Your task to perform on an android device: Open calendar and show me the second week of next month Image 0: 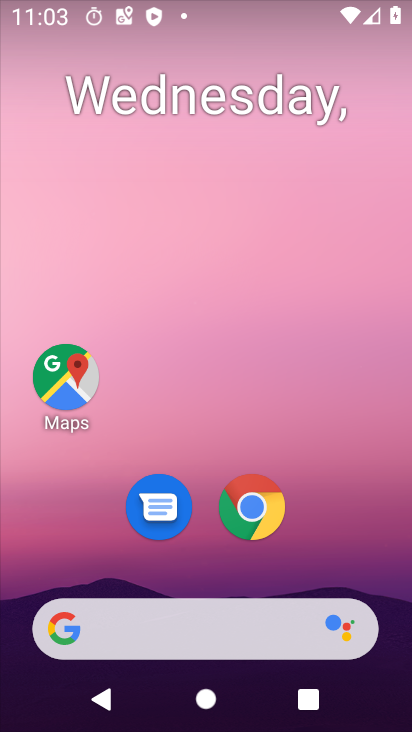
Step 0: drag from (218, 725) to (221, 34)
Your task to perform on an android device: Open calendar and show me the second week of next month Image 1: 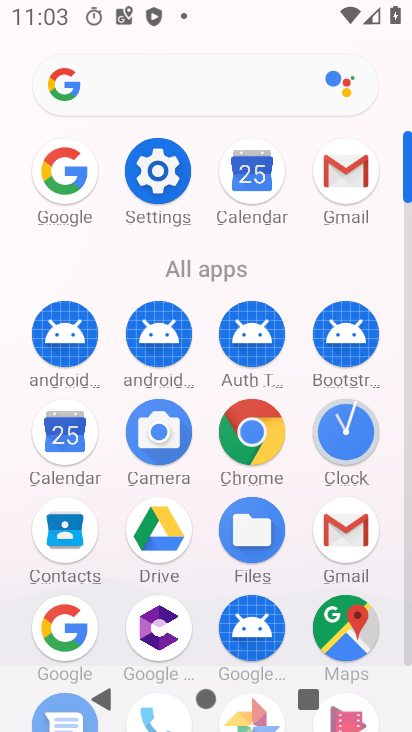
Step 1: click (55, 448)
Your task to perform on an android device: Open calendar and show me the second week of next month Image 2: 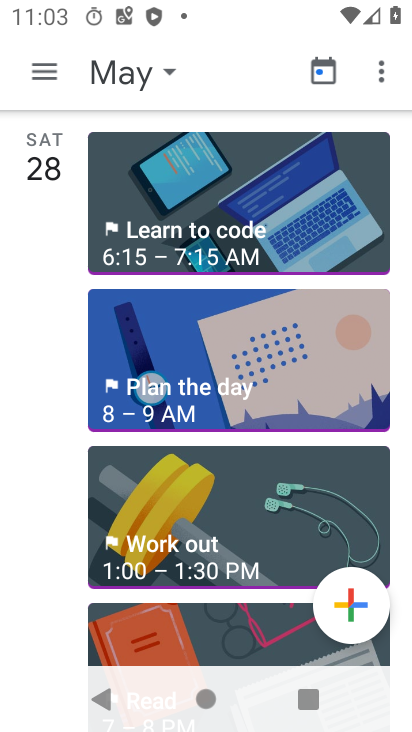
Step 2: click (167, 71)
Your task to perform on an android device: Open calendar and show me the second week of next month Image 3: 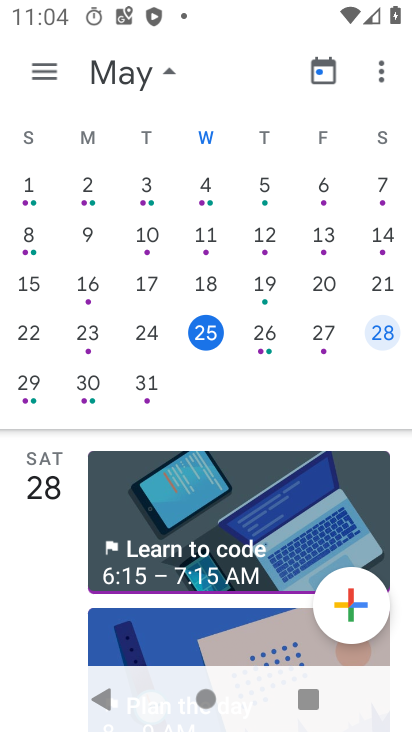
Step 3: drag from (321, 268) to (3, 194)
Your task to perform on an android device: Open calendar and show me the second week of next month Image 4: 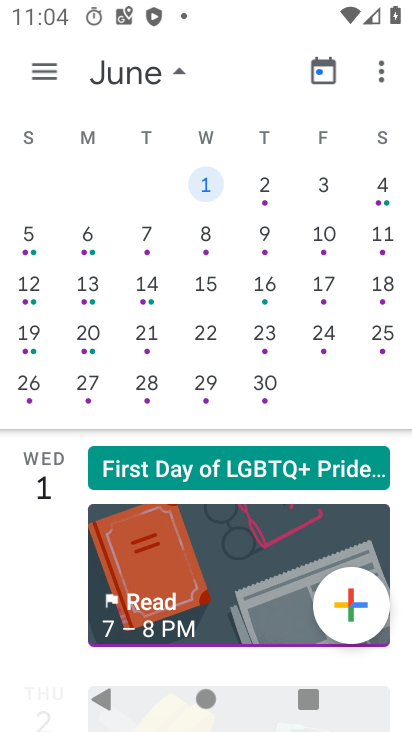
Step 4: click (89, 282)
Your task to perform on an android device: Open calendar and show me the second week of next month Image 5: 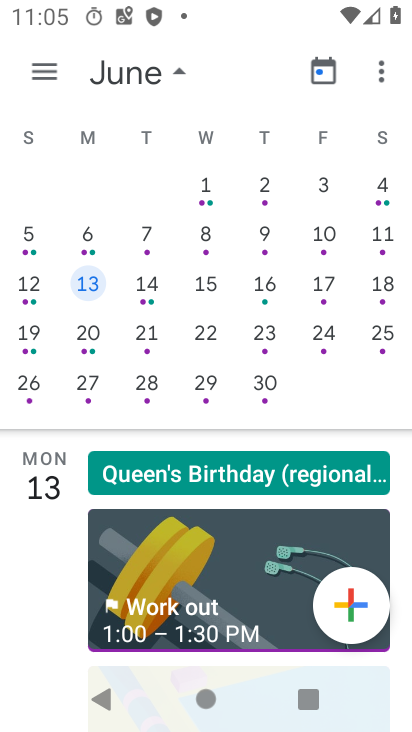
Step 5: click (37, 71)
Your task to perform on an android device: Open calendar and show me the second week of next month Image 6: 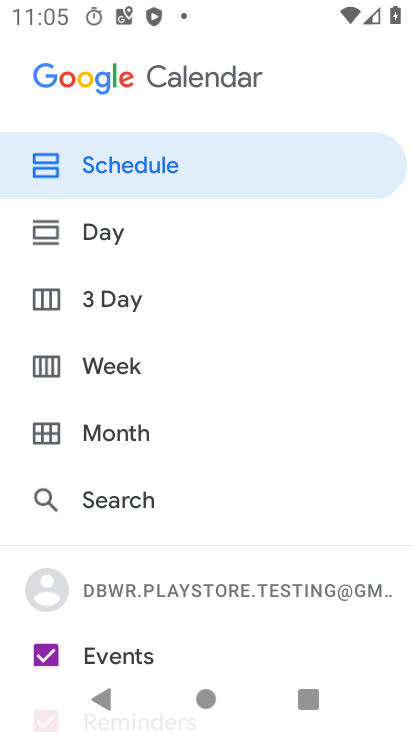
Step 6: click (107, 368)
Your task to perform on an android device: Open calendar and show me the second week of next month Image 7: 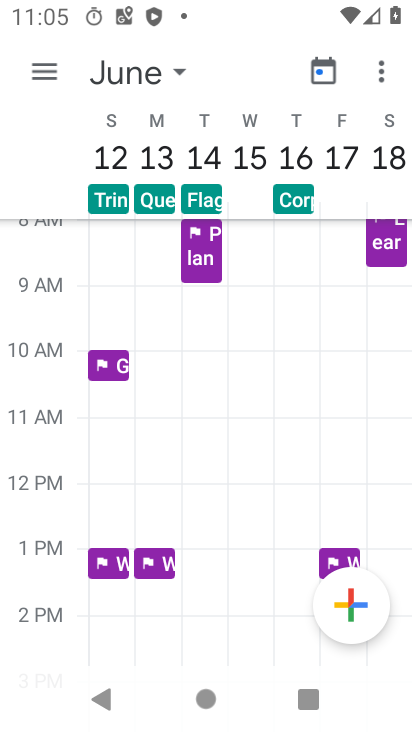
Step 7: task complete